Your task to perform on an android device: turn off translation in the chrome app Image 0: 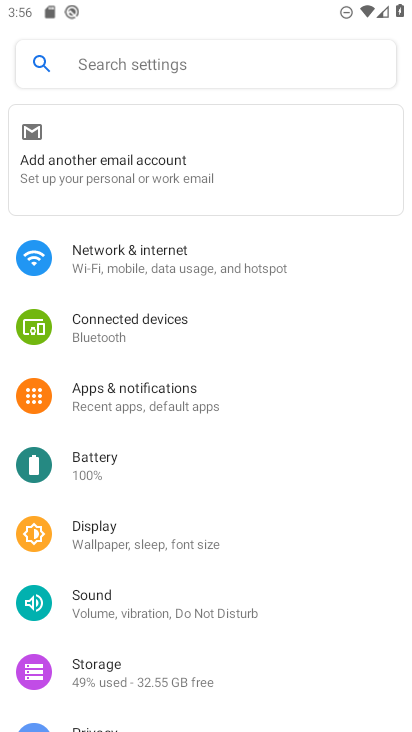
Step 0: press home button
Your task to perform on an android device: turn off translation in the chrome app Image 1: 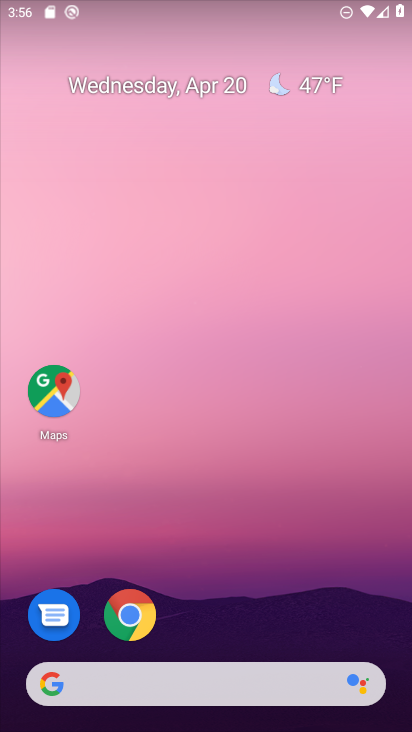
Step 1: click (139, 611)
Your task to perform on an android device: turn off translation in the chrome app Image 2: 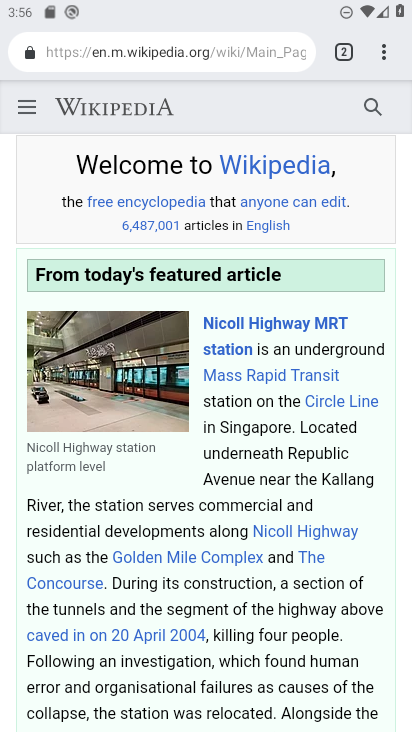
Step 2: click (383, 43)
Your task to perform on an android device: turn off translation in the chrome app Image 3: 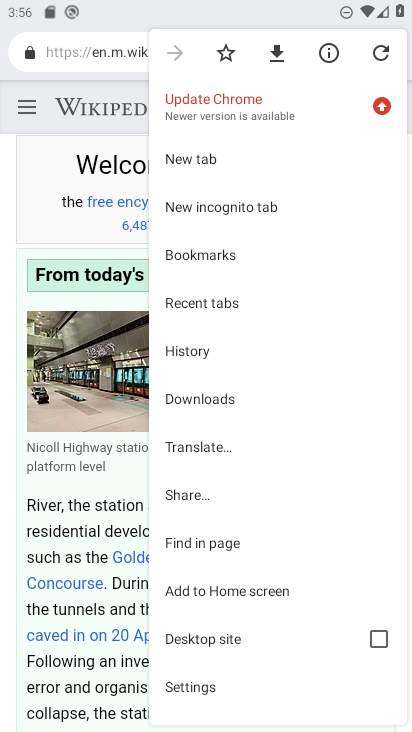
Step 3: drag from (273, 482) to (307, 63)
Your task to perform on an android device: turn off translation in the chrome app Image 4: 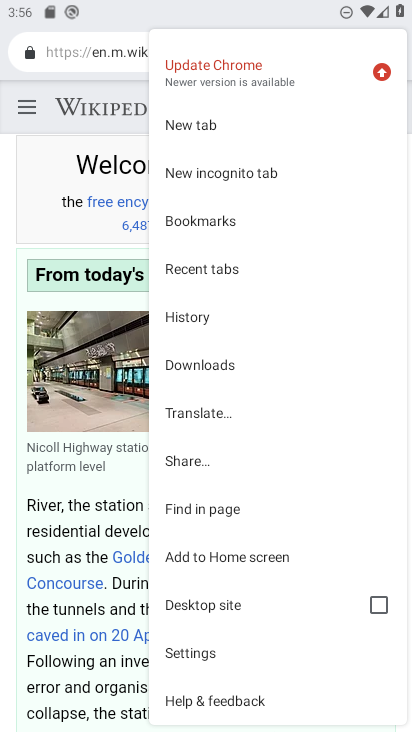
Step 4: click (234, 657)
Your task to perform on an android device: turn off translation in the chrome app Image 5: 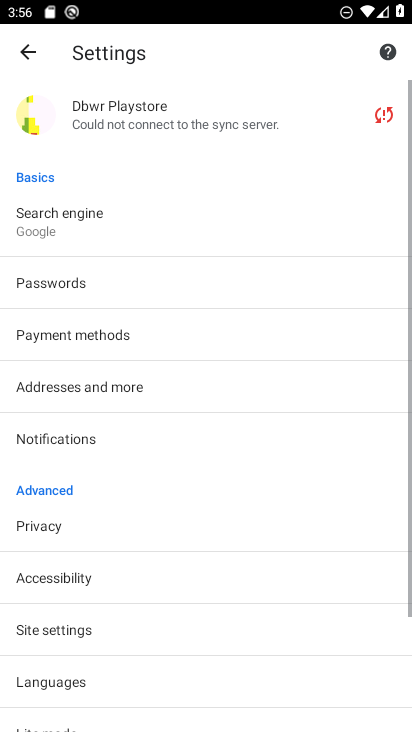
Step 5: drag from (234, 657) to (311, 75)
Your task to perform on an android device: turn off translation in the chrome app Image 6: 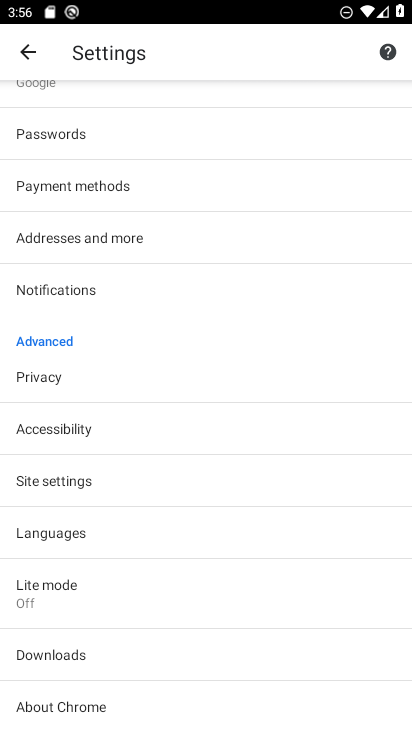
Step 6: click (103, 540)
Your task to perform on an android device: turn off translation in the chrome app Image 7: 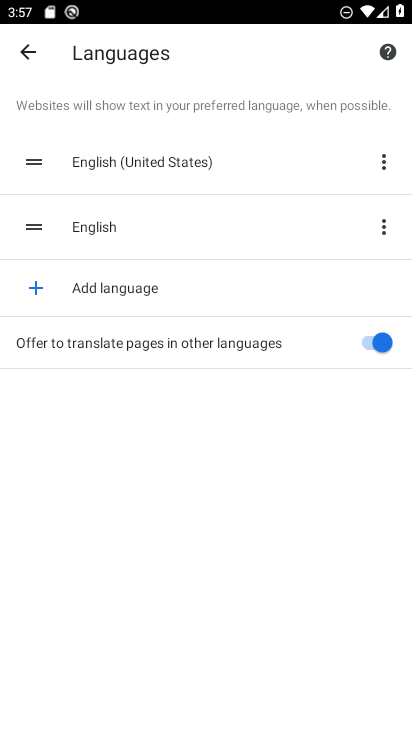
Step 7: click (380, 337)
Your task to perform on an android device: turn off translation in the chrome app Image 8: 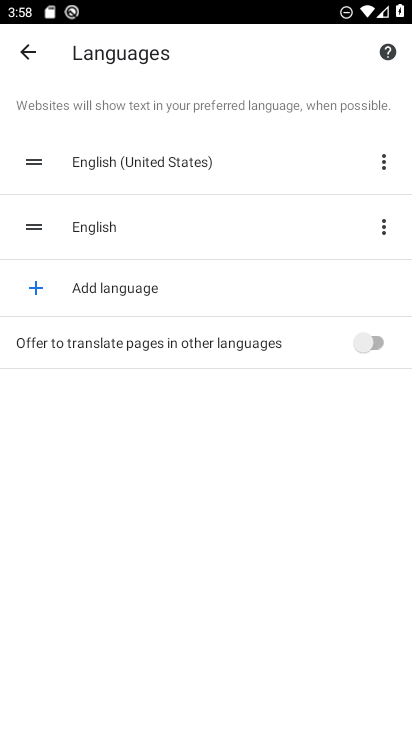
Step 8: task complete